Your task to perform on an android device: Show me popular videos on Youtube Image 0: 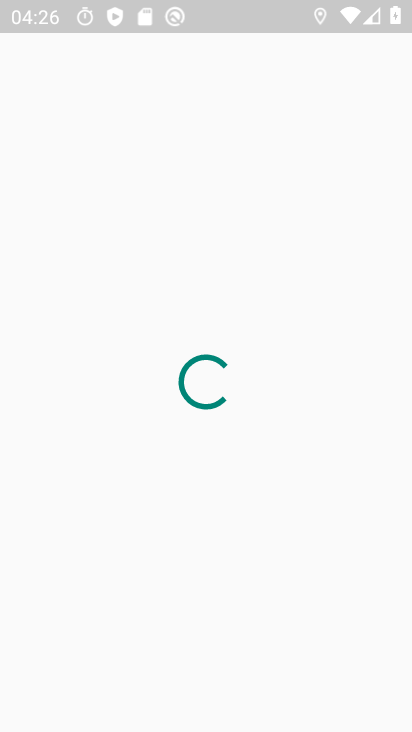
Step 0: press back button
Your task to perform on an android device: Show me popular videos on Youtube Image 1: 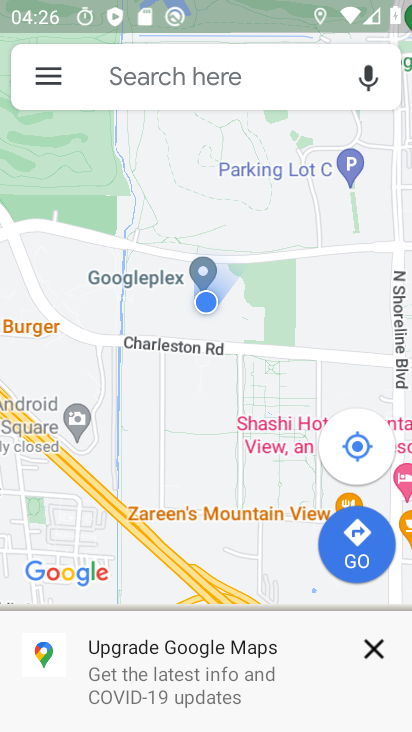
Step 1: press home button
Your task to perform on an android device: Show me popular videos on Youtube Image 2: 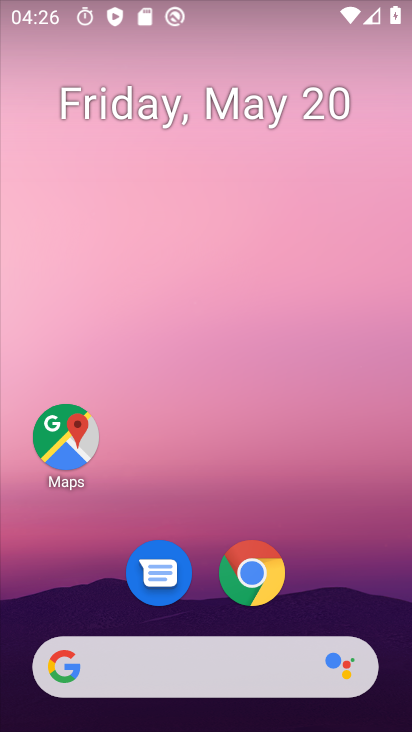
Step 2: drag from (332, 682) to (177, 202)
Your task to perform on an android device: Show me popular videos on Youtube Image 3: 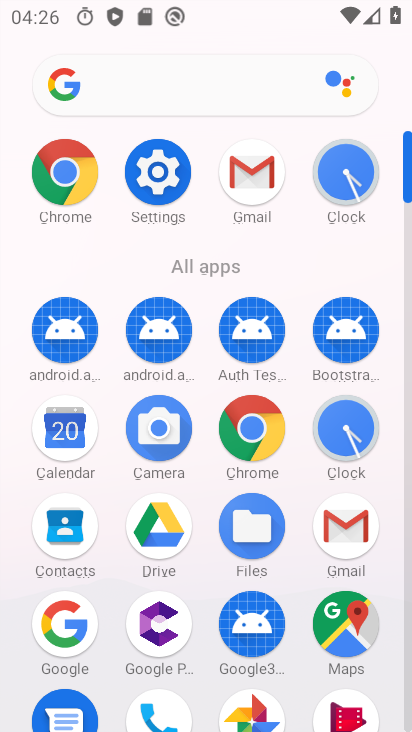
Step 3: drag from (299, 555) to (259, 257)
Your task to perform on an android device: Show me popular videos on Youtube Image 4: 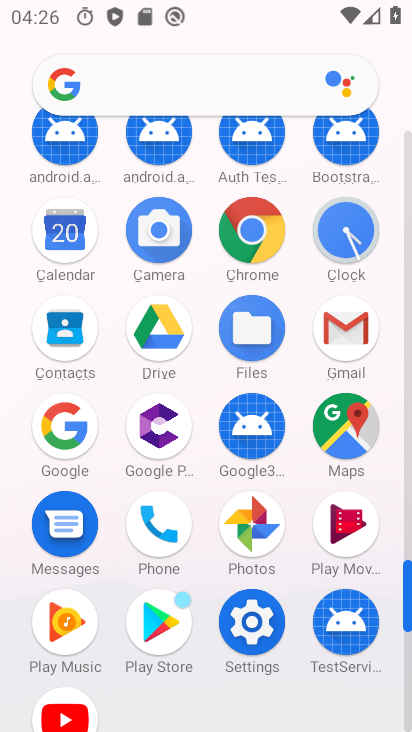
Step 4: drag from (269, 507) to (233, 297)
Your task to perform on an android device: Show me popular videos on Youtube Image 5: 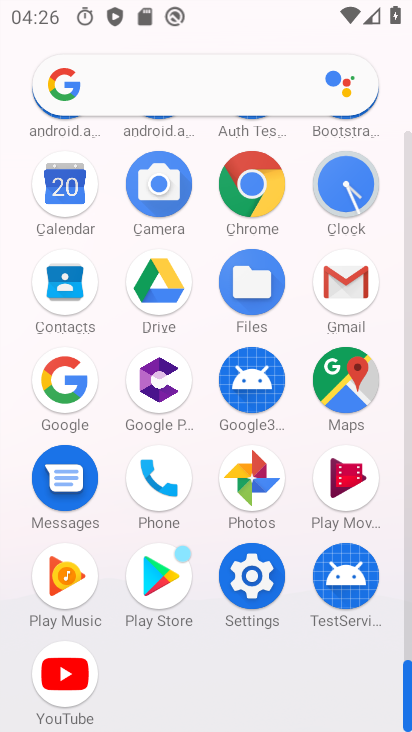
Step 5: click (68, 666)
Your task to perform on an android device: Show me popular videos on Youtube Image 6: 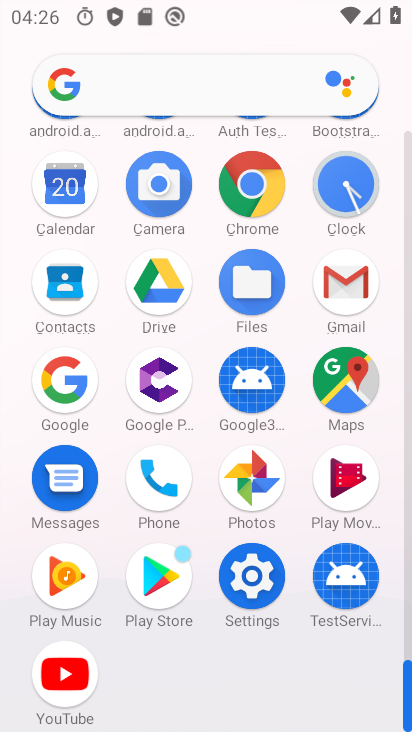
Step 6: click (68, 666)
Your task to perform on an android device: Show me popular videos on Youtube Image 7: 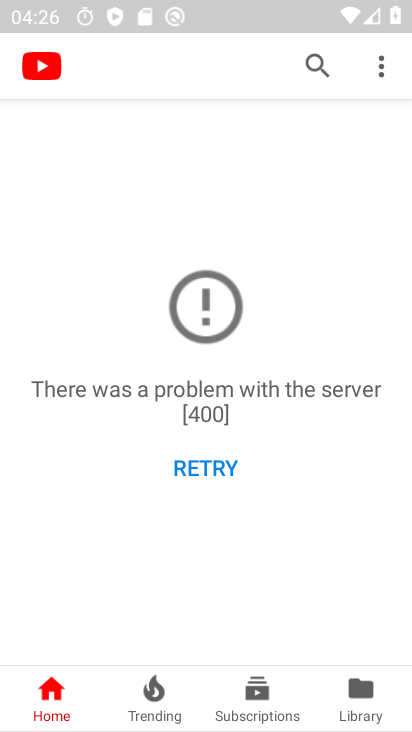
Step 7: task complete